Your task to perform on an android device: allow notifications from all sites in the chrome app Image 0: 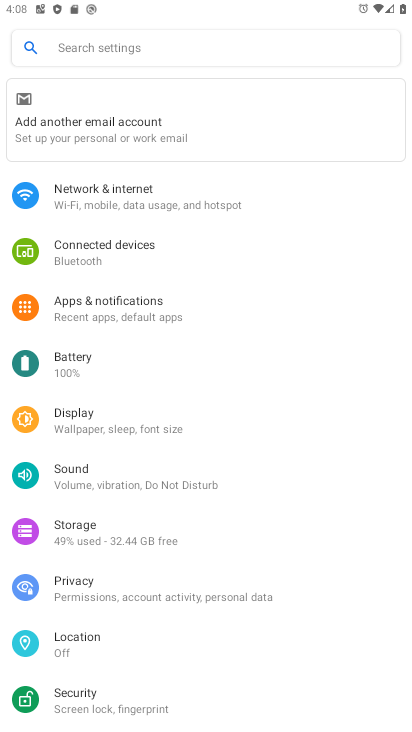
Step 0: press home button
Your task to perform on an android device: allow notifications from all sites in the chrome app Image 1: 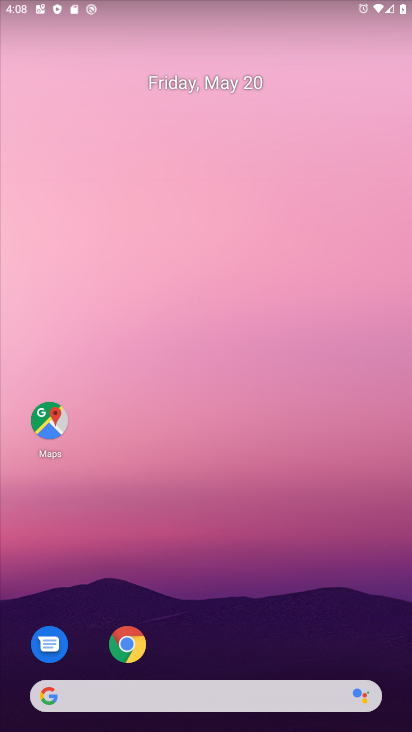
Step 1: drag from (263, 659) to (197, 130)
Your task to perform on an android device: allow notifications from all sites in the chrome app Image 2: 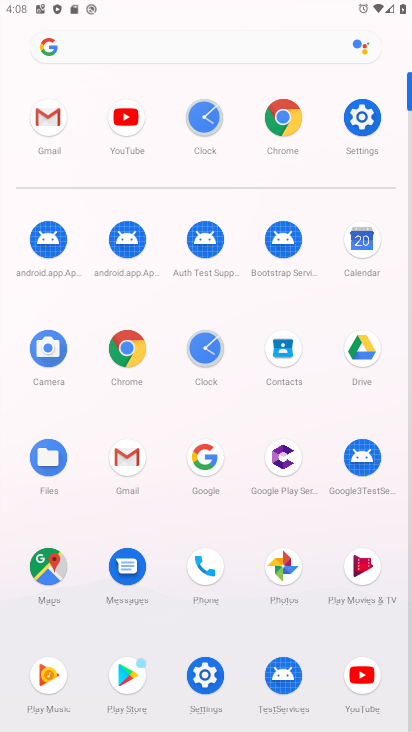
Step 2: click (283, 140)
Your task to perform on an android device: allow notifications from all sites in the chrome app Image 3: 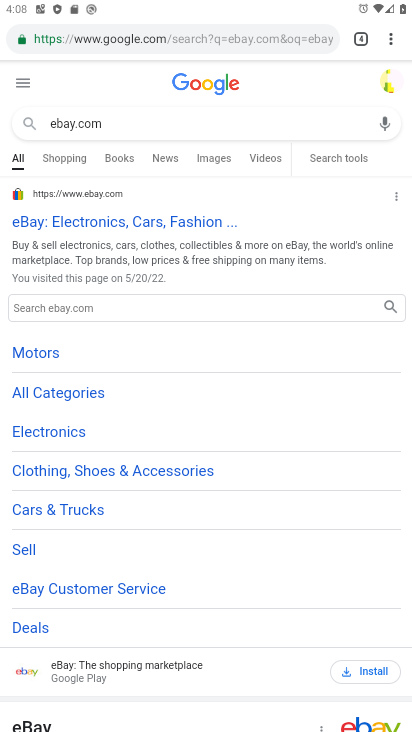
Step 3: click (393, 26)
Your task to perform on an android device: allow notifications from all sites in the chrome app Image 4: 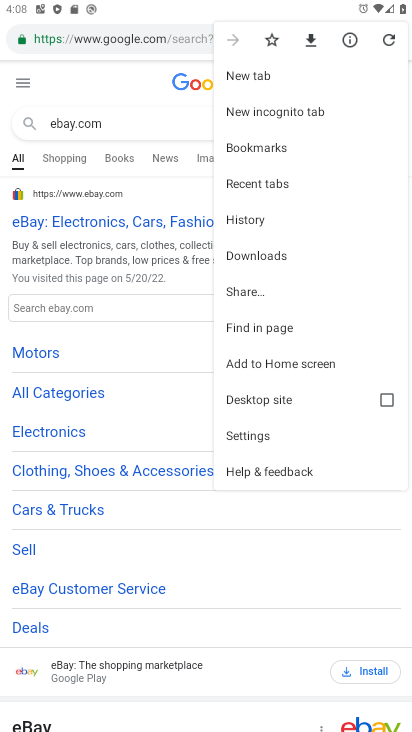
Step 4: click (259, 442)
Your task to perform on an android device: allow notifications from all sites in the chrome app Image 5: 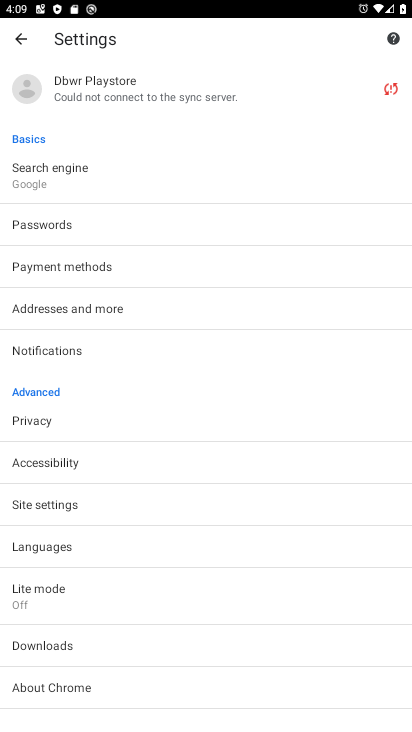
Step 5: click (165, 337)
Your task to perform on an android device: allow notifications from all sites in the chrome app Image 6: 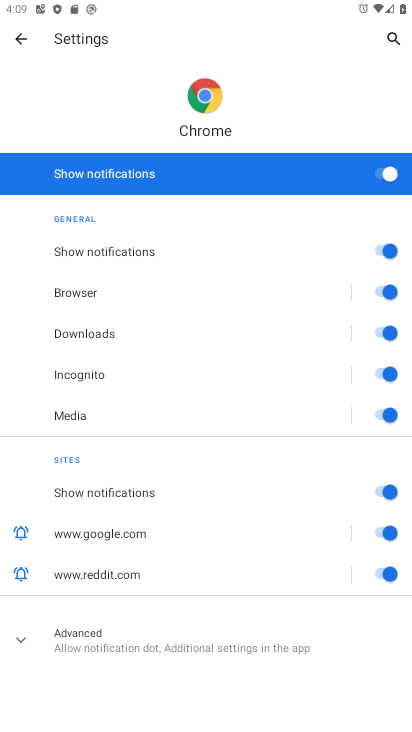
Step 6: task complete